Your task to perform on an android device: turn on notifications settings in the gmail app Image 0: 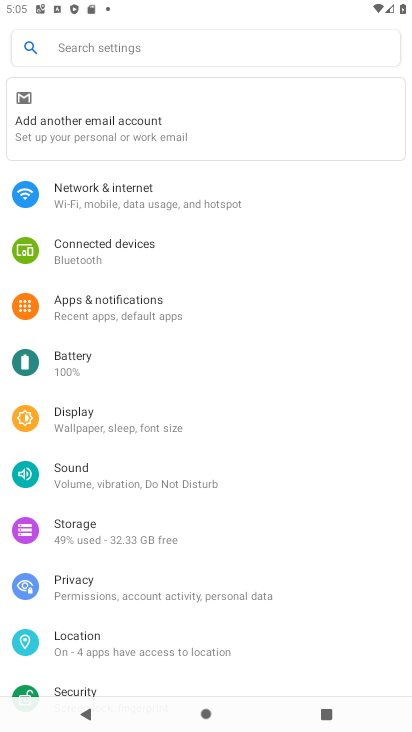
Step 0: press home button
Your task to perform on an android device: turn on notifications settings in the gmail app Image 1: 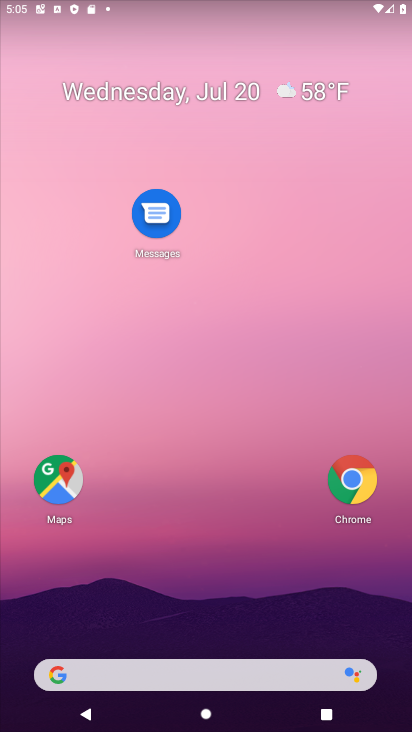
Step 1: drag from (208, 541) to (259, 0)
Your task to perform on an android device: turn on notifications settings in the gmail app Image 2: 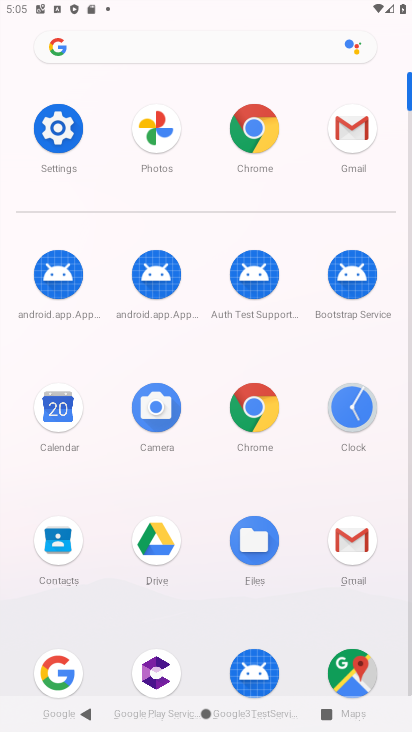
Step 2: click (360, 145)
Your task to perform on an android device: turn on notifications settings in the gmail app Image 3: 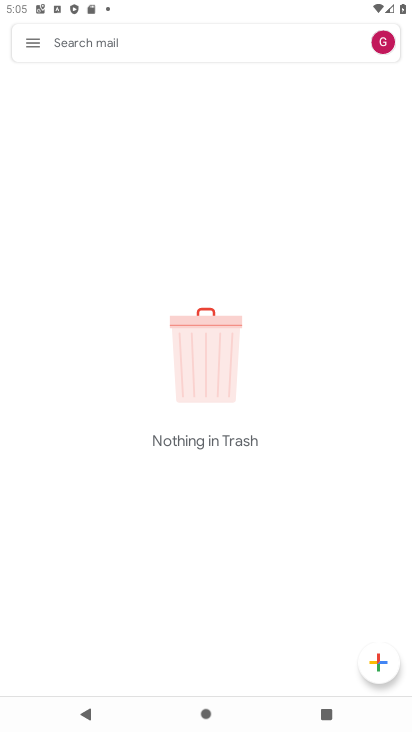
Step 3: click (34, 46)
Your task to perform on an android device: turn on notifications settings in the gmail app Image 4: 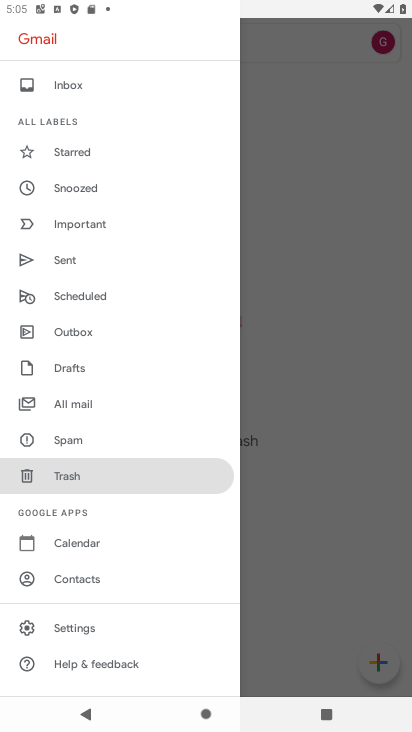
Step 4: click (68, 630)
Your task to perform on an android device: turn on notifications settings in the gmail app Image 5: 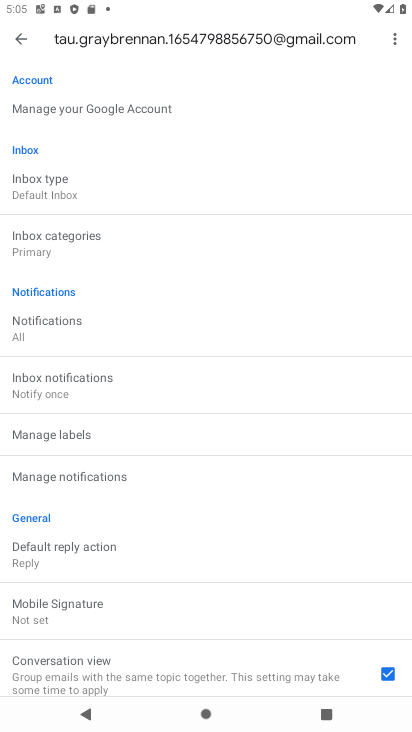
Step 5: click (54, 477)
Your task to perform on an android device: turn on notifications settings in the gmail app Image 6: 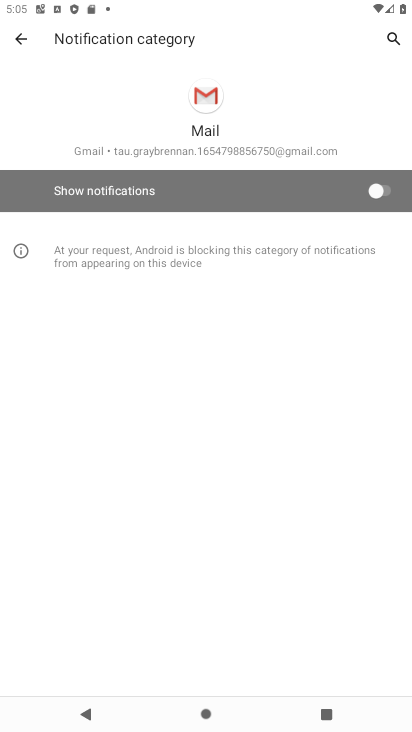
Step 6: click (385, 193)
Your task to perform on an android device: turn on notifications settings in the gmail app Image 7: 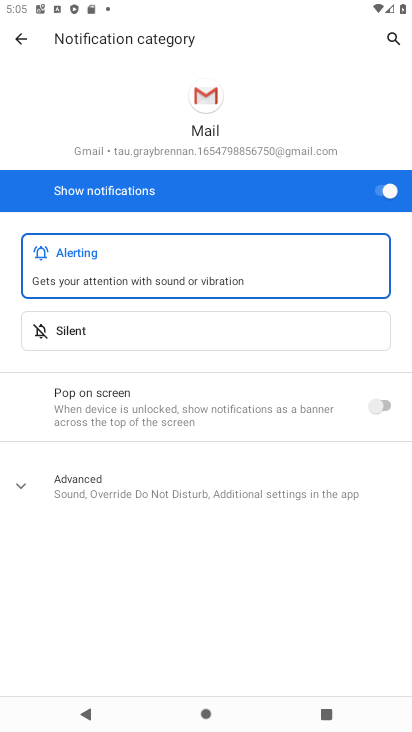
Step 7: task complete